Your task to perform on an android device: toggle show notifications on the lock screen Image 0: 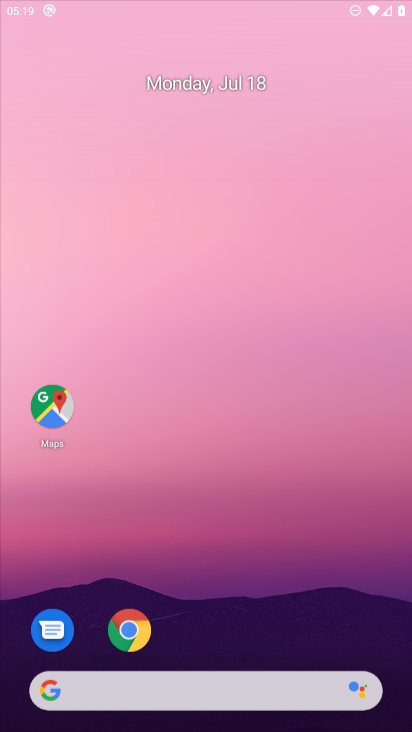
Step 0: press home button
Your task to perform on an android device: toggle show notifications on the lock screen Image 1: 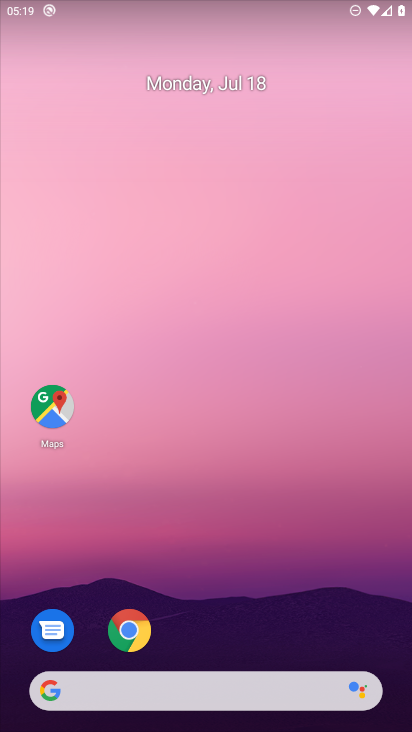
Step 1: drag from (242, 650) to (270, 269)
Your task to perform on an android device: toggle show notifications on the lock screen Image 2: 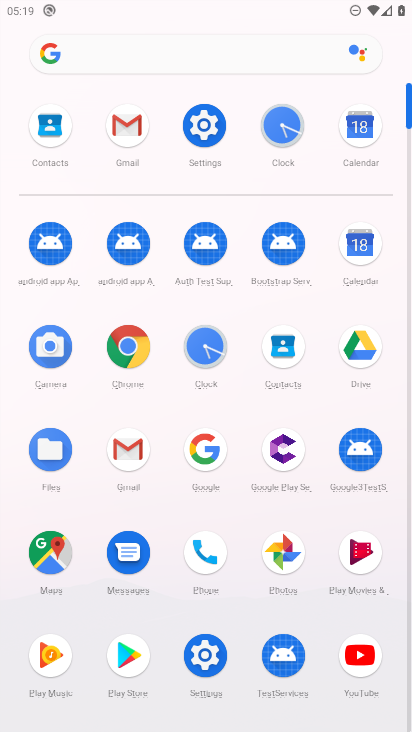
Step 2: click (202, 115)
Your task to perform on an android device: toggle show notifications on the lock screen Image 3: 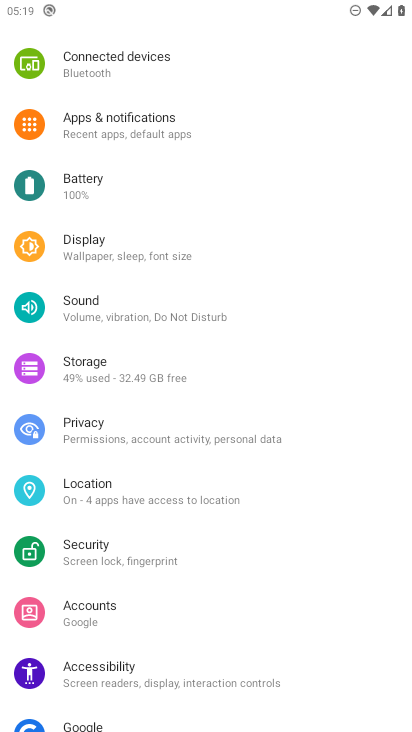
Step 3: click (140, 119)
Your task to perform on an android device: toggle show notifications on the lock screen Image 4: 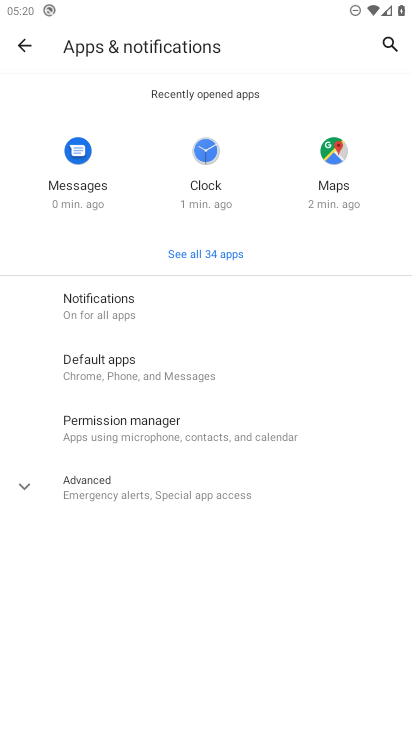
Step 4: click (147, 295)
Your task to perform on an android device: toggle show notifications on the lock screen Image 5: 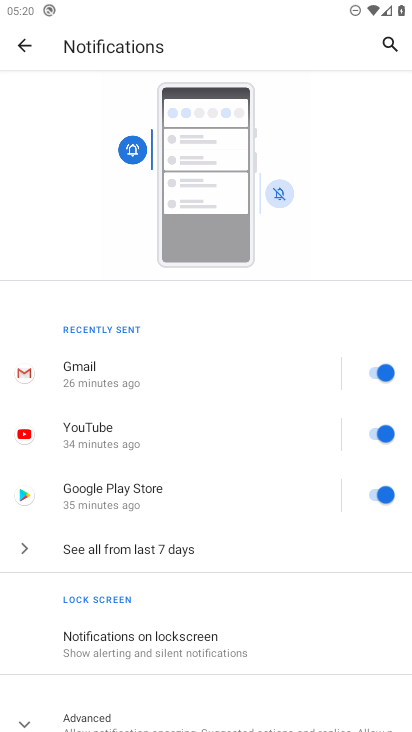
Step 5: click (205, 645)
Your task to perform on an android device: toggle show notifications on the lock screen Image 6: 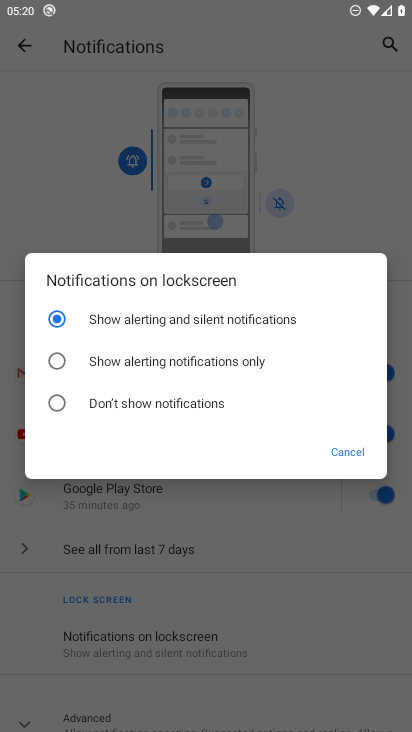
Step 6: click (53, 362)
Your task to perform on an android device: toggle show notifications on the lock screen Image 7: 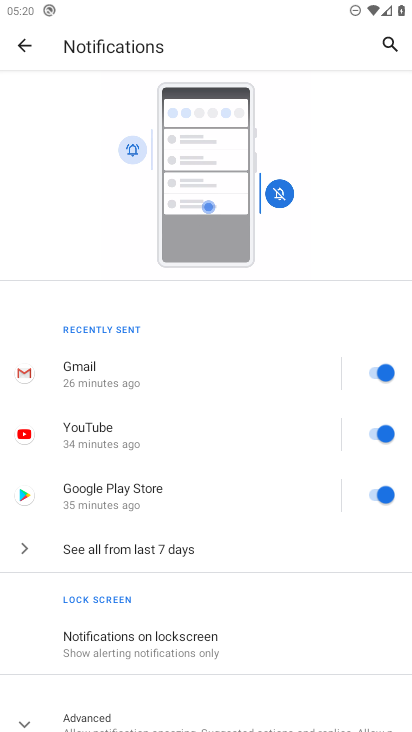
Step 7: task complete